Your task to perform on an android device: Open Wikipedia Image 0: 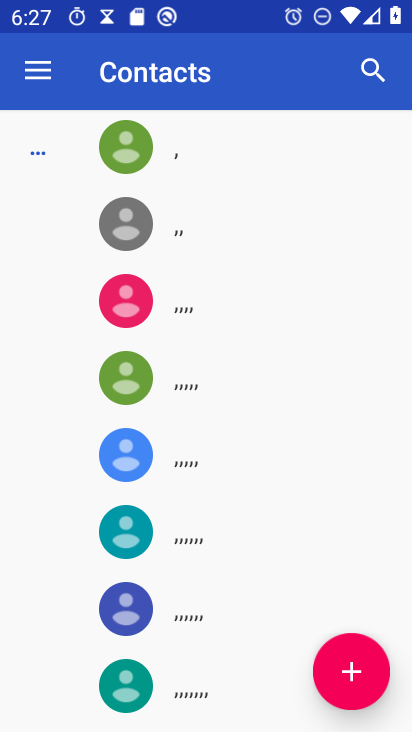
Step 0: press home button
Your task to perform on an android device: Open Wikipedia Image 1: 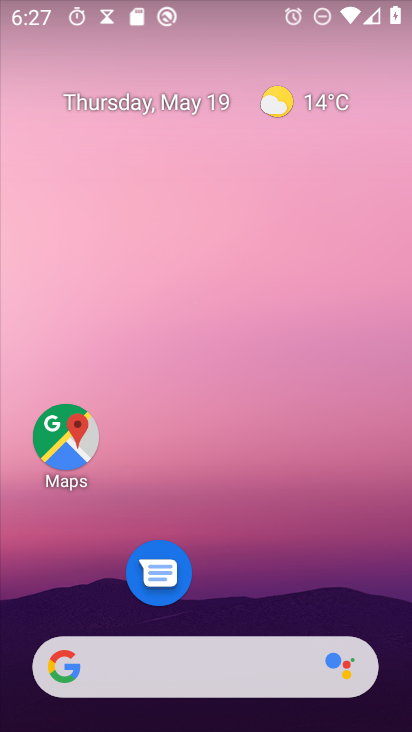
Step 1: drag from (202, 578) to (70, 84)
Your task to perform on an android device: Open Wikipedia Image 2: 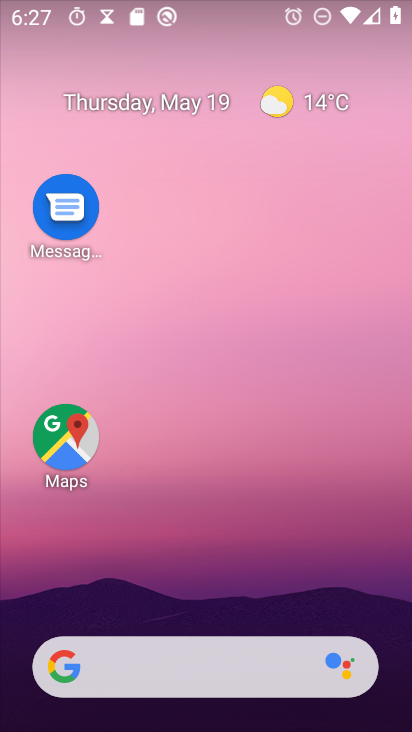
Step 2: drag from (204, 590) to (65, 128)
Your task to perform on an android device: Open Wikipedia Image 3: 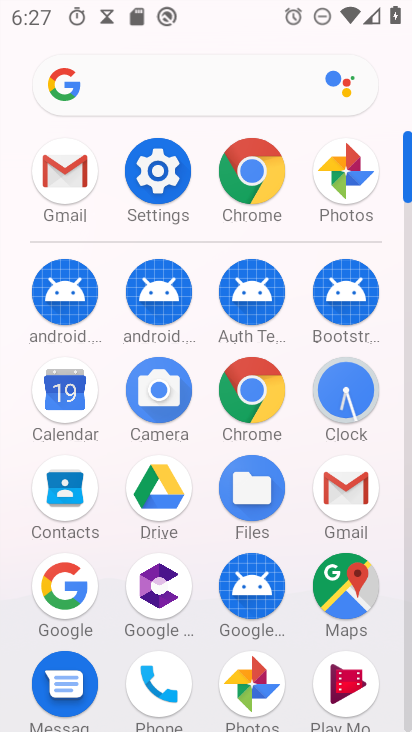
Step 3: click (260, 202)
Your task to perform on an android device: Open Wikipedia Image 4: 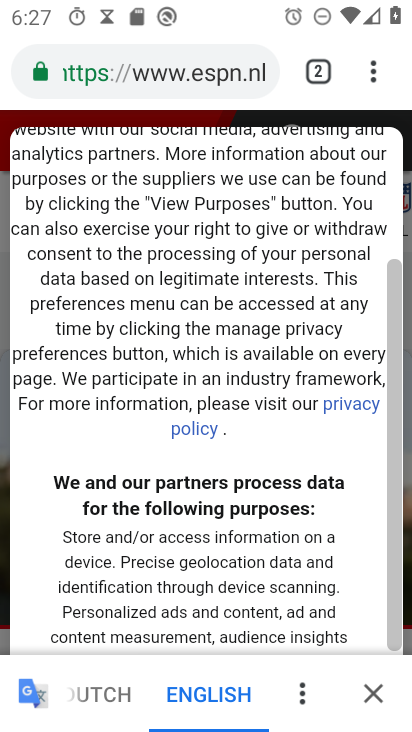
Step 4: press back button
Your task to perform on an android device: Open Wikipedia Image 5: 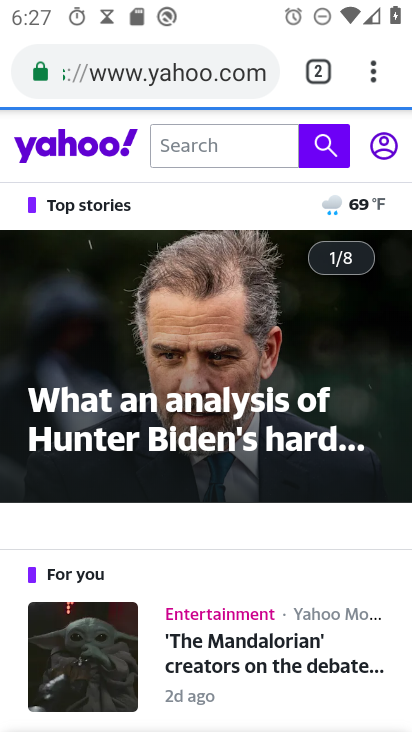
Step 5: press back button
Your task to perform on an android device: Open Wikipedia Image 6: 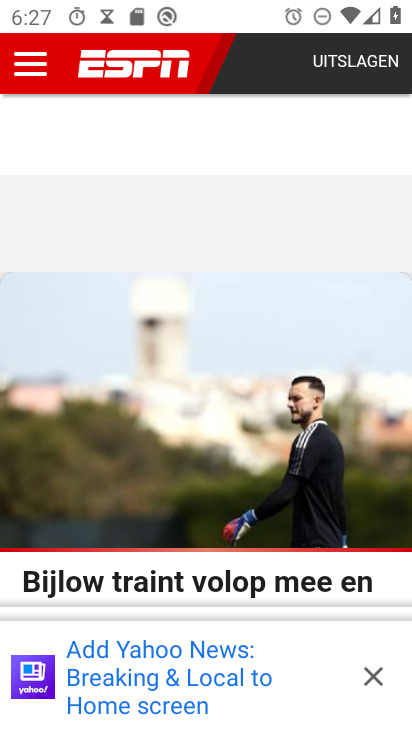
Step 6: press back button
Your task to perform on an android device: Open Wikipedia Image 7: 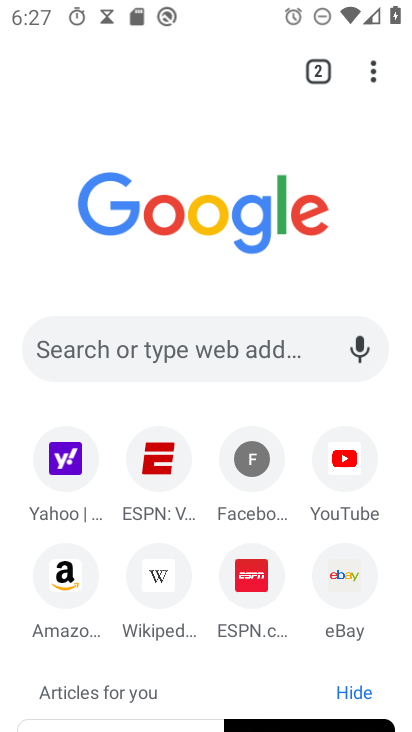
Step 7: click (134, 576)
Your task to perform on an android device: Open Wikipedia Image 8: 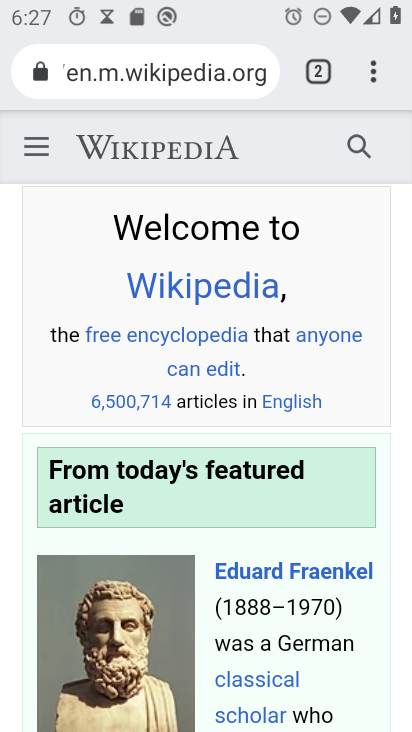
Step 8: task complete